Your task to perform on an android device: What's on my calendar today? Image 0: 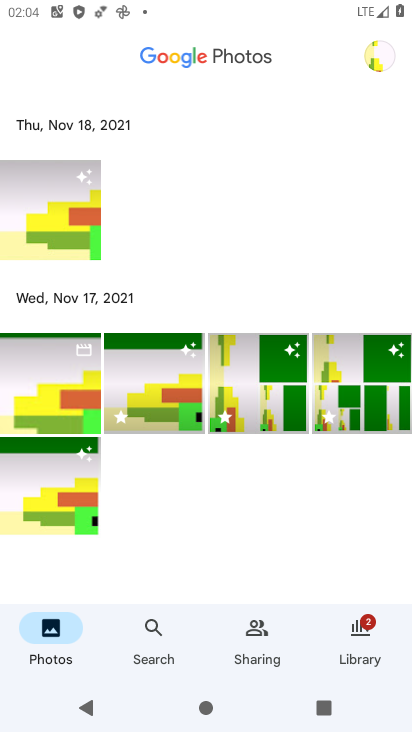
Step 0: press home button
Your task to perform on an android device: What's on my calendar today? Image 1: 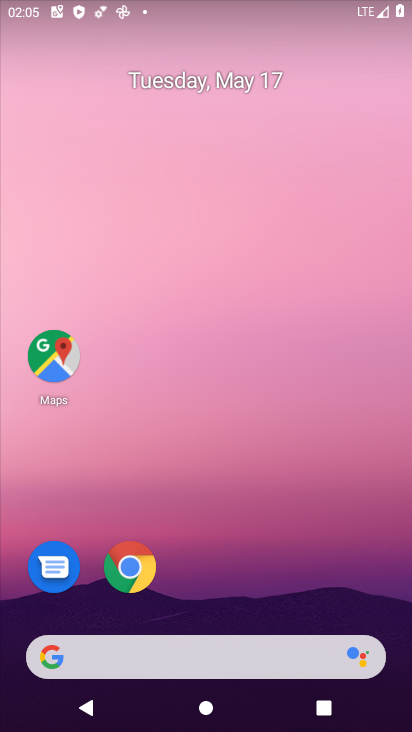
Step 1: drag from (382, 616) to (273, 76)
Your task to perform on an android device: What's on my calendar today? Image 2: 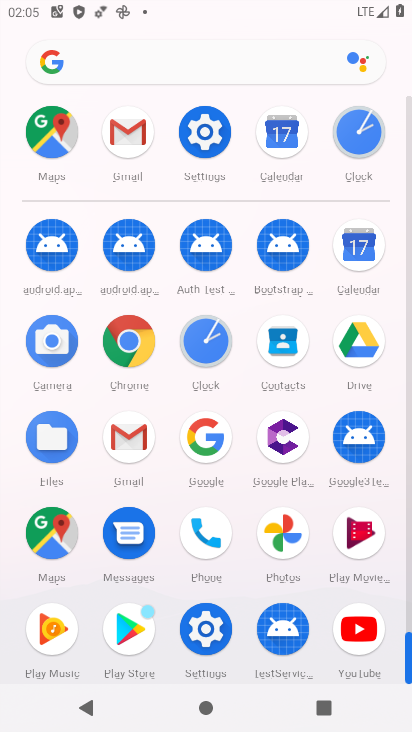
Step 2: click (357, 250)
Your task to perform on an android device: What's on my calendar today? Image 3: 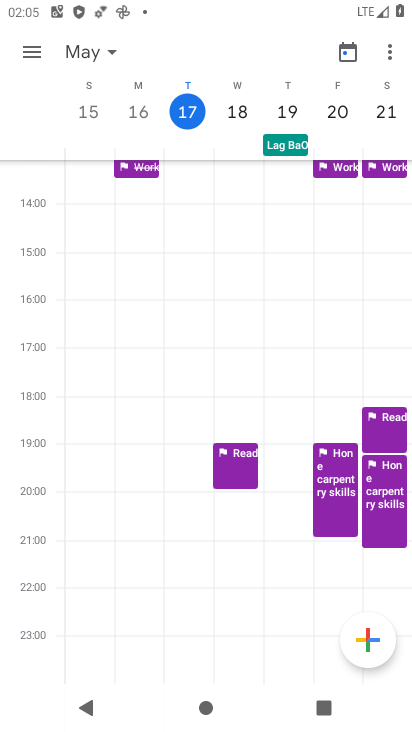
Step 3: click (31, 59)
Your task to perform on an android device: What's on my calendar today? Image 4: 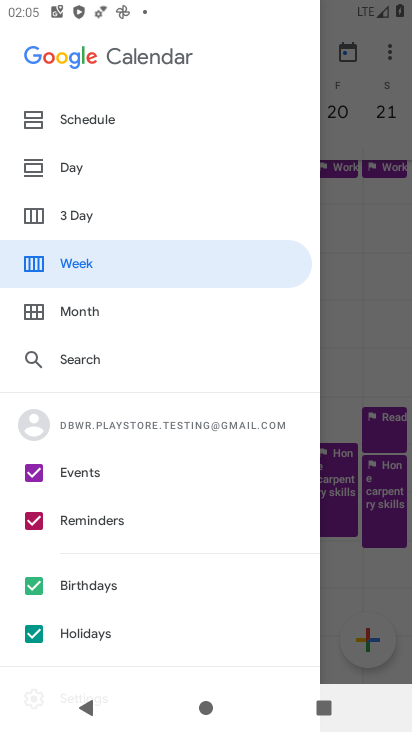
Step 4: click (58, 161)
Your task to perform on an android device: What's on my calendar today? Image 5: 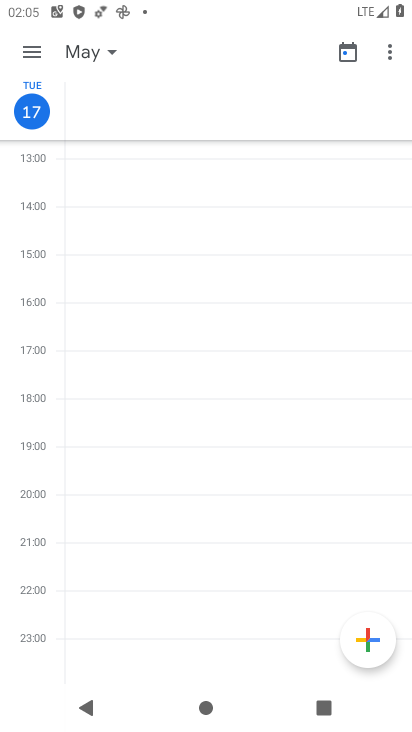
Step 5: task complete